Your task to perform on an android device: Open Chrome and go to settings Image 0: 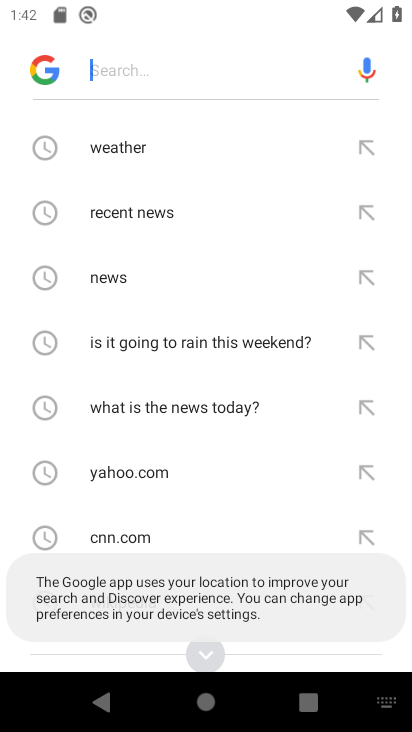
Step 0: drag from (213, 505) to (265, 190)
Your task to perform on an android device: Open Chrome and go to settings Image 1: 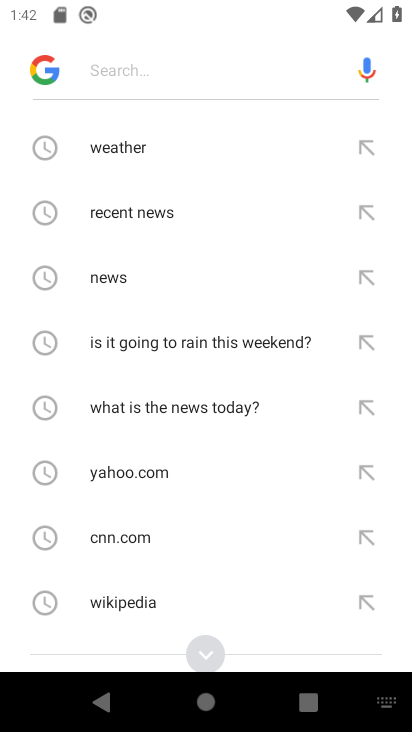
Step 1: drag from (266, 395) to (406, 12)
Your task to perform on an android device: Open Chrome and go to settings Image 2: 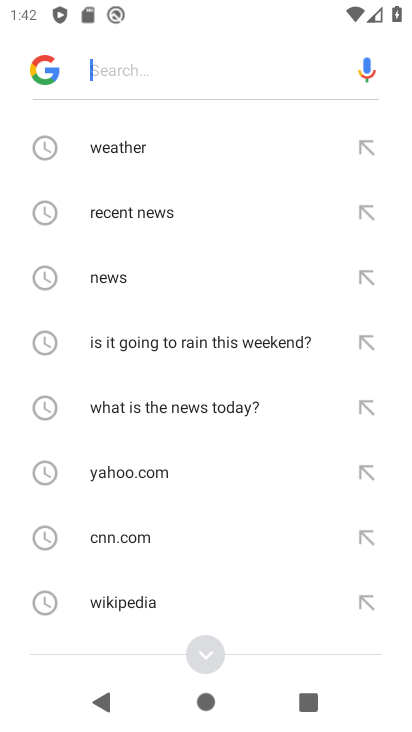
Step 2: press home button
Your task to perform on an android device: Open Chrome and go to settings Image 3: 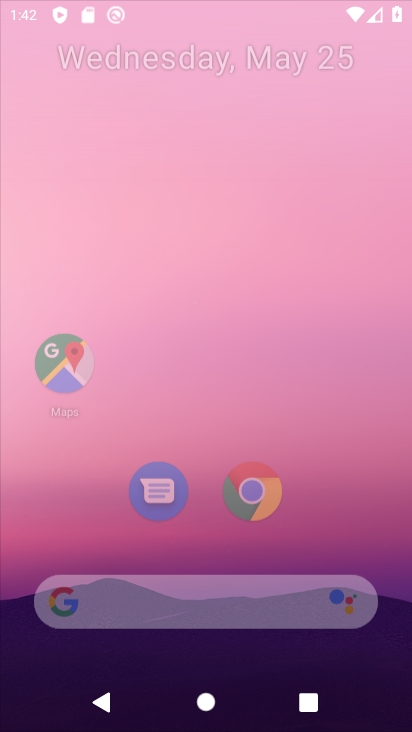
Step 3: drag from (198, 567) to (340, 3)
Your task to perform on an android device: Open Chrome and go to settings Image 4: 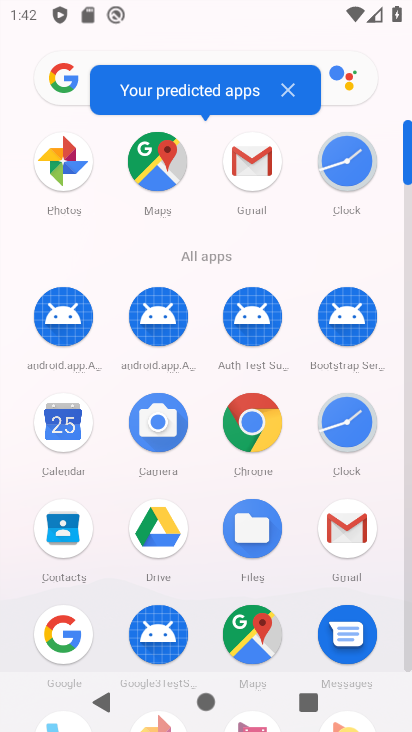
Step 4: click (248, 426)
Your task to perform on an android device: Open Chrome and go to settings Image 5: 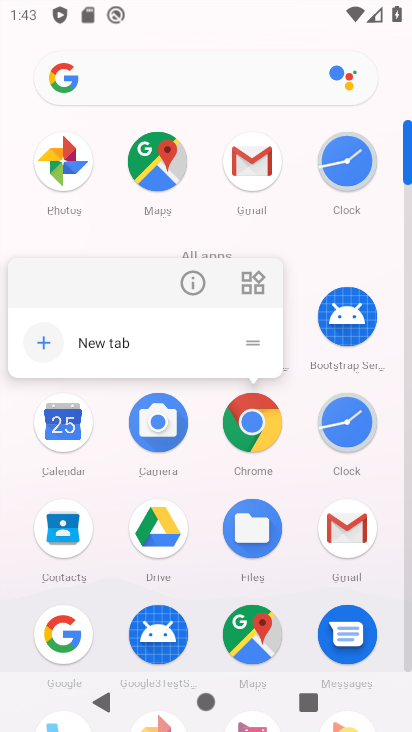
Step 5: click (192, 279)
Your task to perform on an android device: Open Chrome and go to settings Image 6: 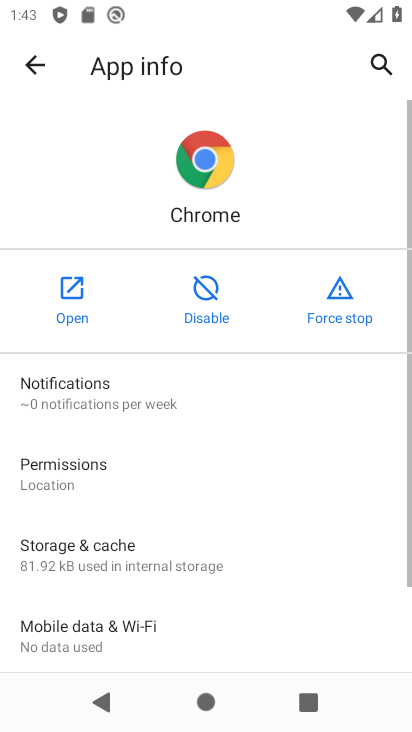
Step 6: click (72, 303)
Your task to perform on an android device: Open Chrome and go to settings Image 7: 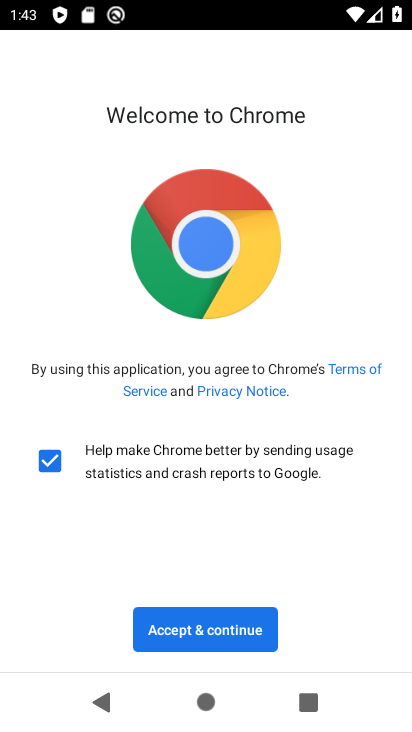
Step 7: click (220, 637)
Your task to perform on an android device: Open Chrome and go to settings Image 8: 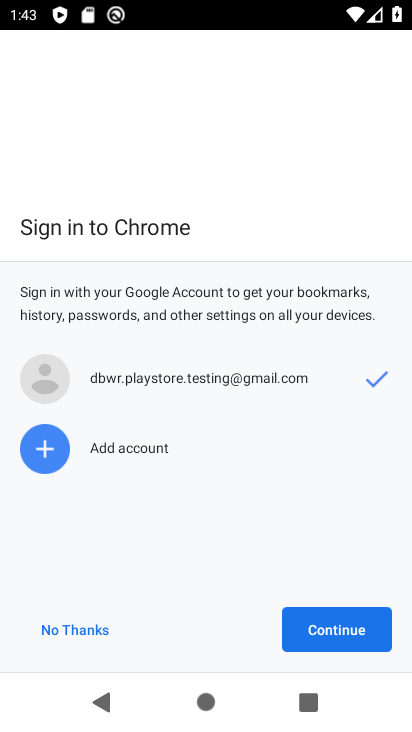
Step 8: click (351, 621)
Your task to perform on an android device: Open Chrome and go to settings Image 9: 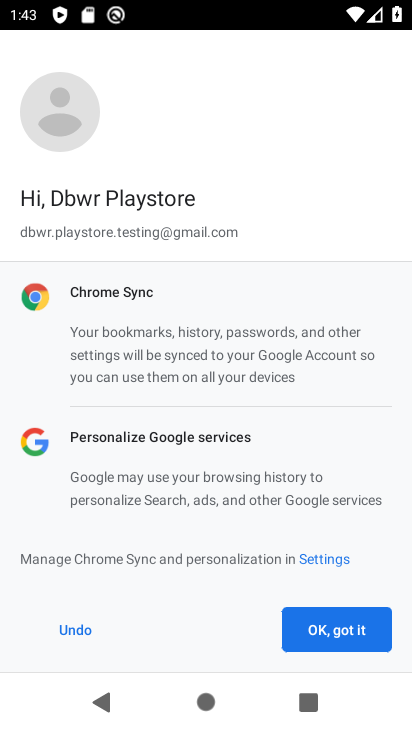
Step 9: click (331, 636)
Your task to perform on an android device: Open Chrome and go to settings Image 10: 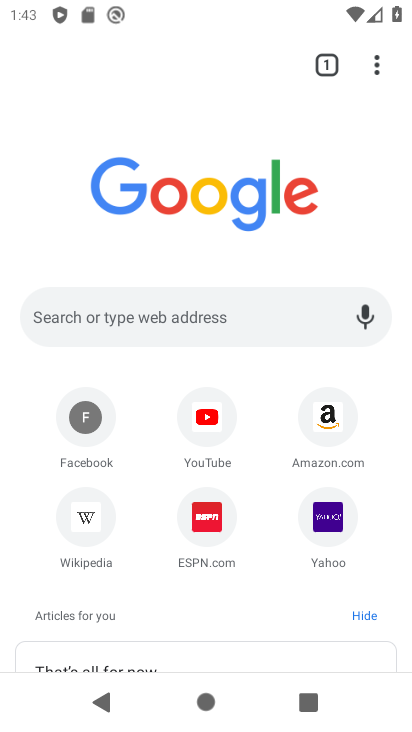
Step 10: click (379, 57)
Your task to perform on an android device: Open Chrome and go to settings Image 11: 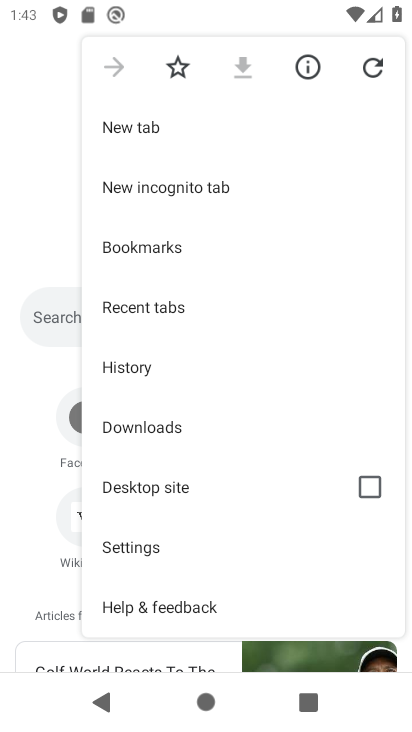
Step 11: click (135, 543)
Your task to perform on an android device: Open Chrome and go to settings Image 12: 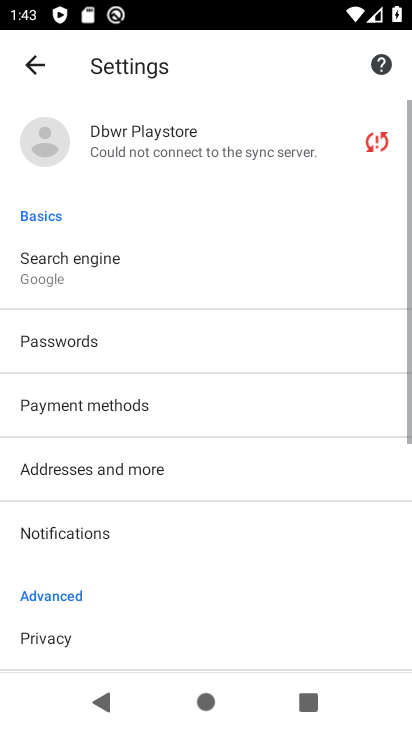
Step 12: task complete